Your task to perform on an android device: change notifications settings Image 0: 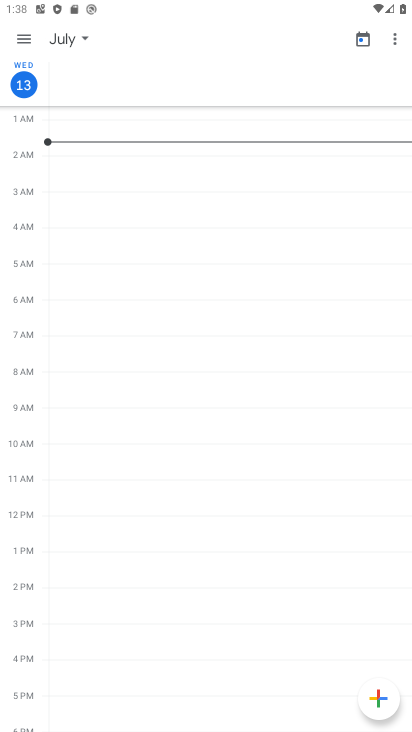
Step 0: press home button
Your task to perform on an android device: change notifications settings Image 1: 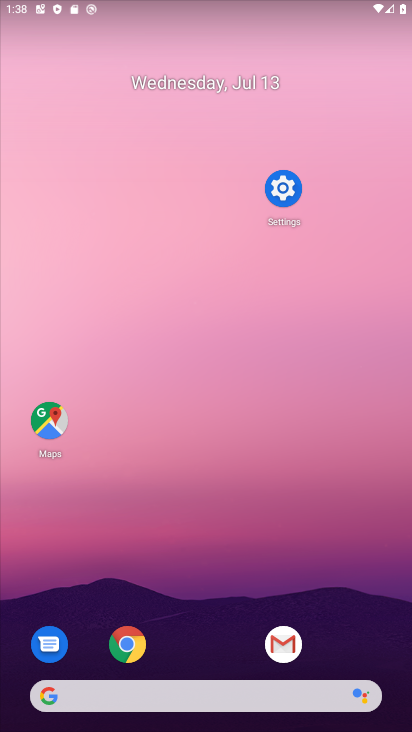
Step 1: click (292, 188)
Your task to perform on an android device: change notifications settings Image 2: 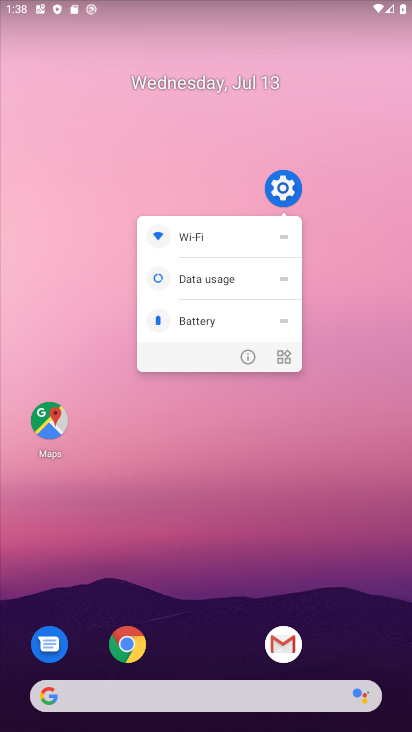
Step 2: click (279, 189)
Your task to perform on an android device: change notifications settings Image 3: 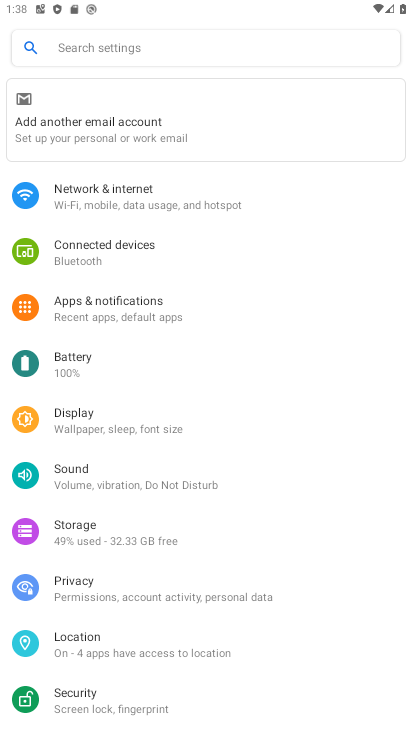
Step 3: click (125, 60)
Your task to perform on an android device: change notifications settings Image 4: 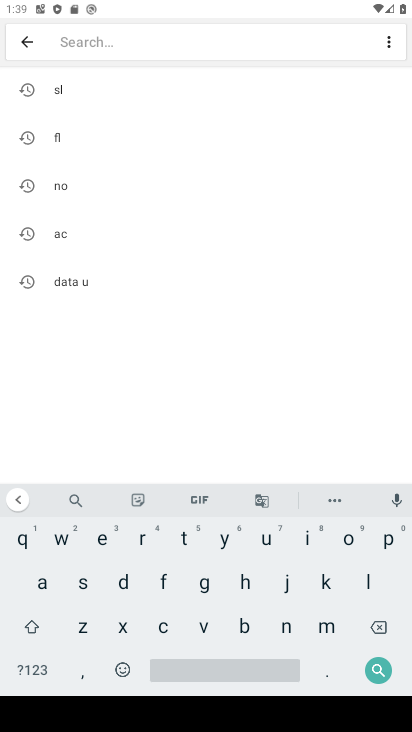
Step 4: click (80, 189)
Your task to perform on an android device: change notifications settings Image 5: 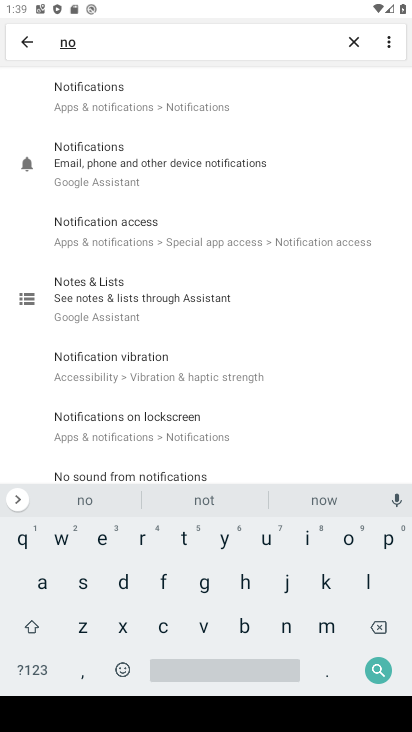
Step 5: click (130, 103)
Your task to perform on an android device: change notifications settings Image 6: 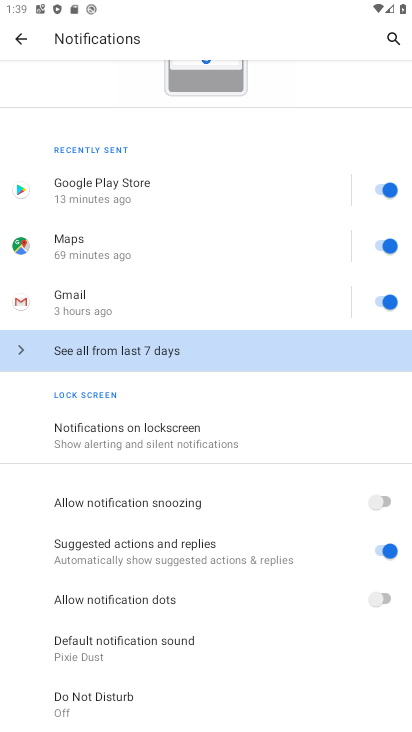
Step 6: click (165, 436)
Your task to perform on an android device: change notifications settings Image 7: 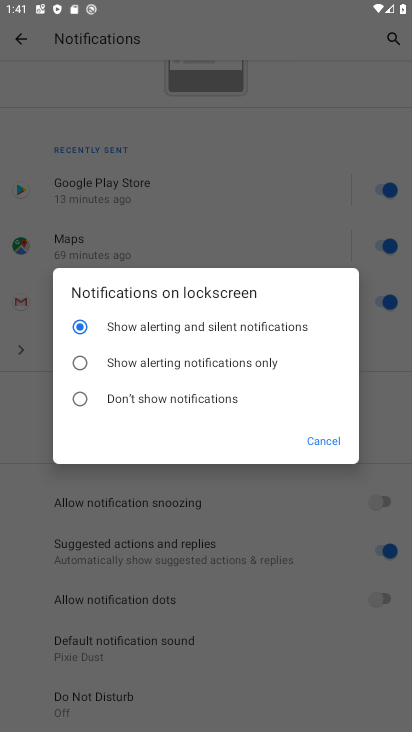
Step 7: task complete